Your task to perform on an android device: change timer sound Image 0: 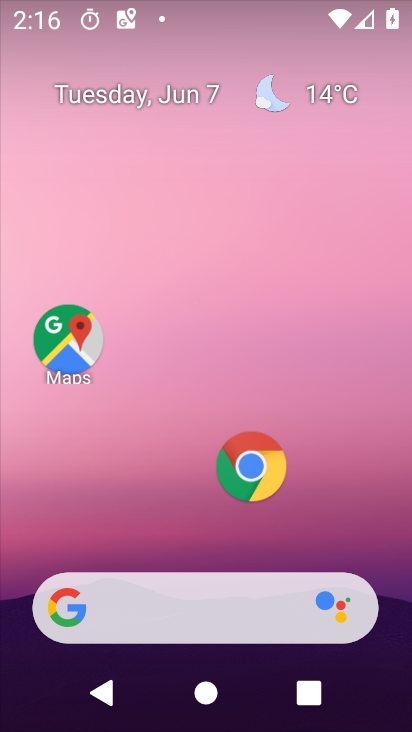
Step 0: drag from (180, 730) to (269, 135)
Your task to perform on an android device: change timer sound Image 1: 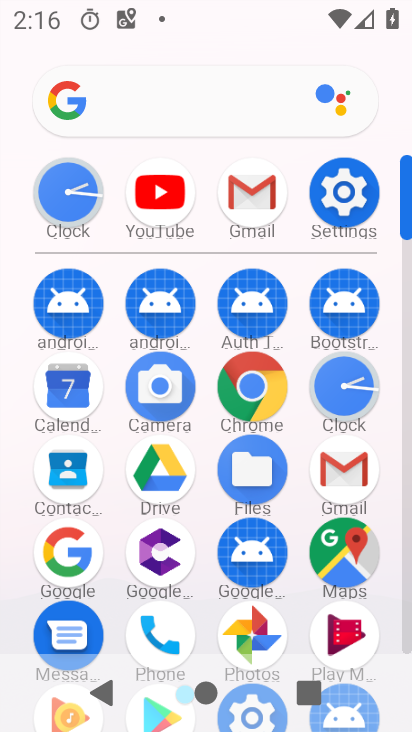
Step 1: click (350, 404)
Your task to perform on an android device: change timer sound Image 2: 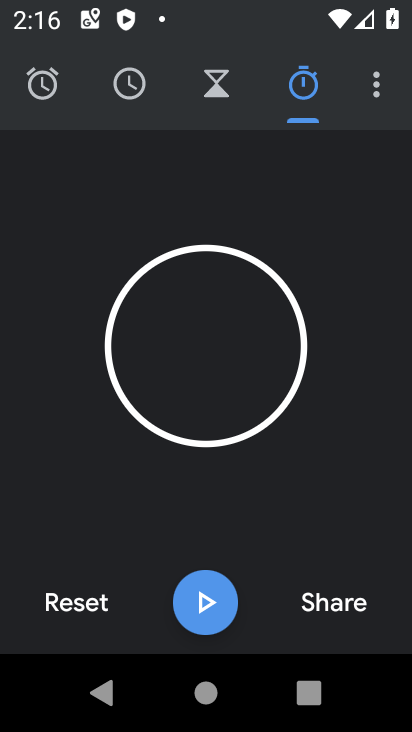
Step 2: click (375, 96)
Your task to perform on an android device: change timer sound Image 3: 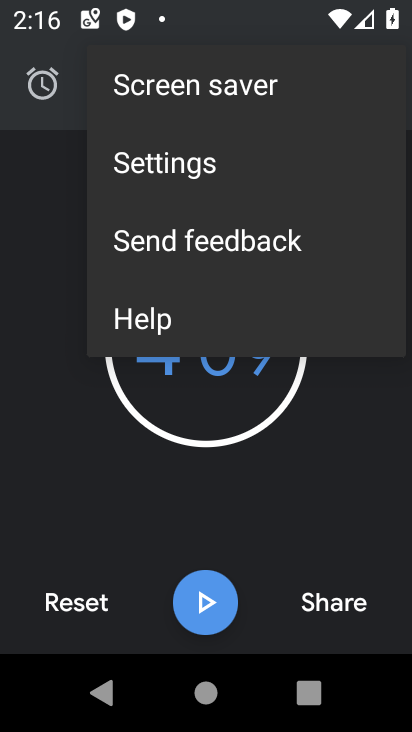
Step 3: click (137, 164)
Your task to perform on an android device: change timer sound Image 4: 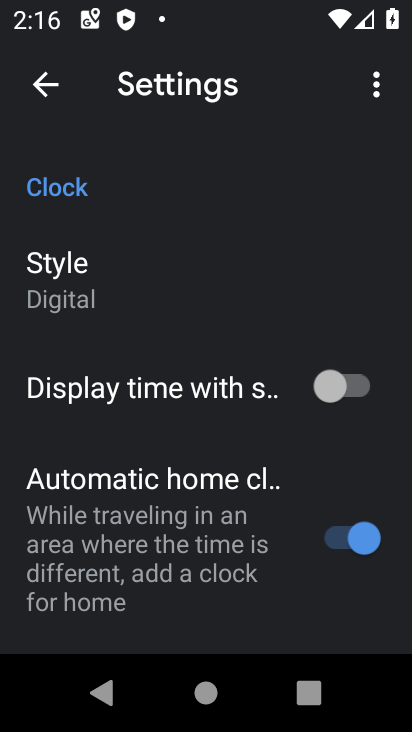
Step 4: drag from (159, 592) to (205, 174)
Your task to perform on an android device: change timer sound Image 5: 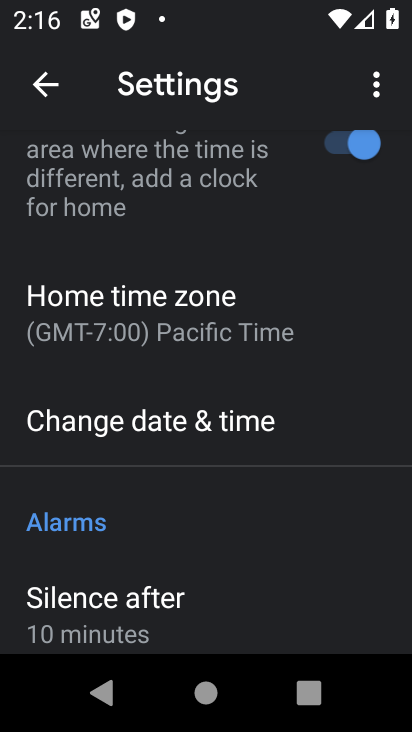
Step 5: drag from (228, 578) to (244, 225)
Your task to perform on an android device: change timer sound Image 6: 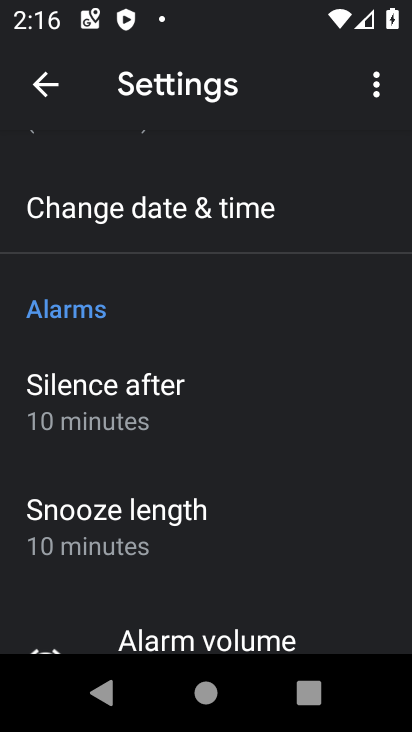
Step 6: drag from (211, 553) to (233, 264)
Your task to perform on an android device: change timer sound Image 7: 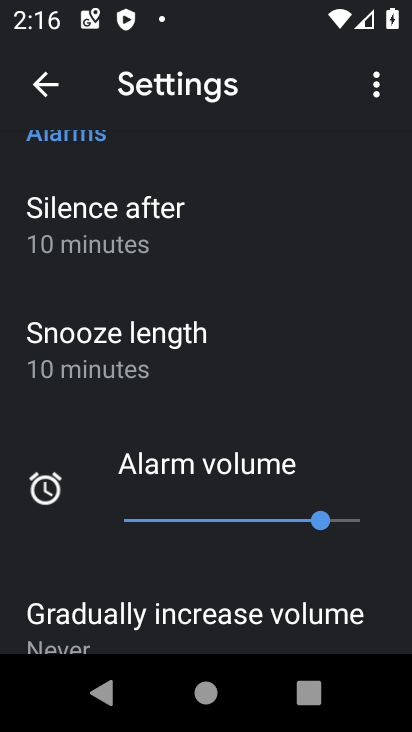
Step 7: drag from (214, 608) to (198, 298)
Your task to perform on an android device: change timer sound Image 8: 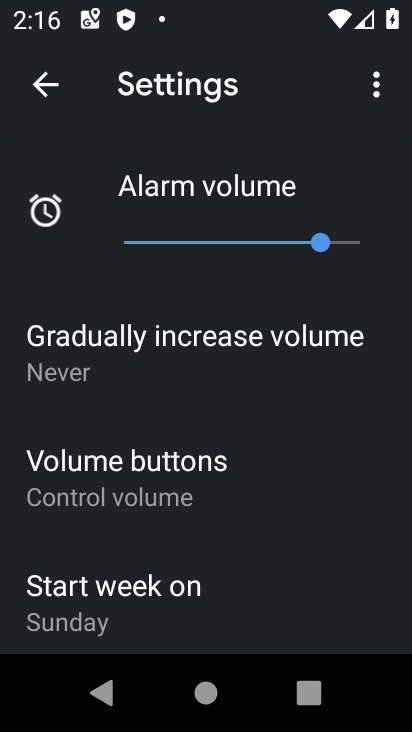
Step 8: drag from (238, 595) to (259, 201)
Your task to perform on an android device: change timer sound Image 9: 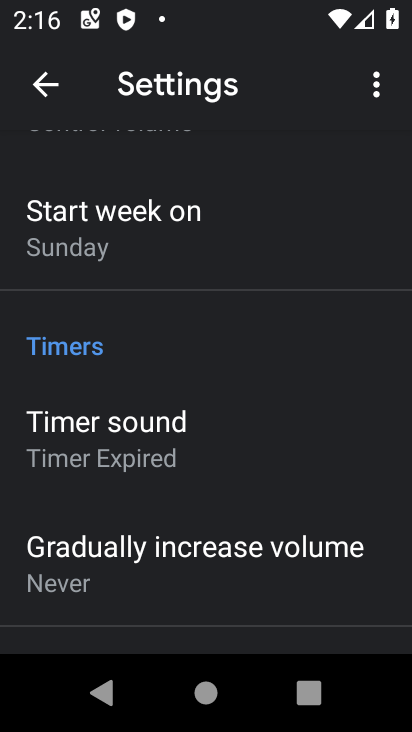
Step 9: click (111, 459)
Your task to perform on an android device: change timer sound Image 10: 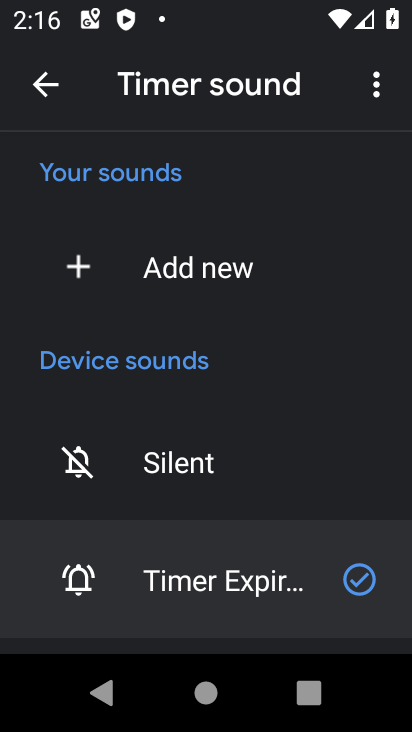
Step 10: drag from (233, 466) to (233, 103)
Your task to perform on an android device: change timer sound Image 11: 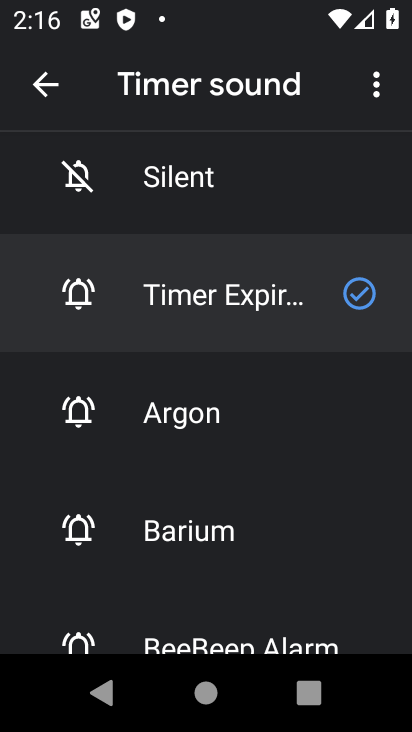
Step 11: click (181, 417)
Your task to perform on an android device: change timer sound Image 12: 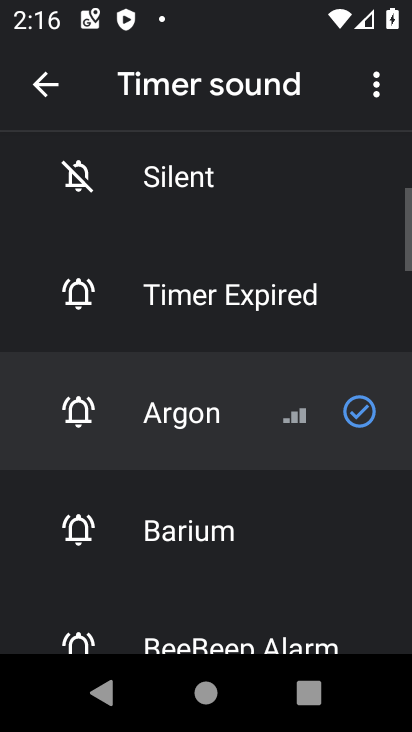
Step 12: task complete